Your task to perform on an android device: turn off notifications settings in the gmail app Image 0: 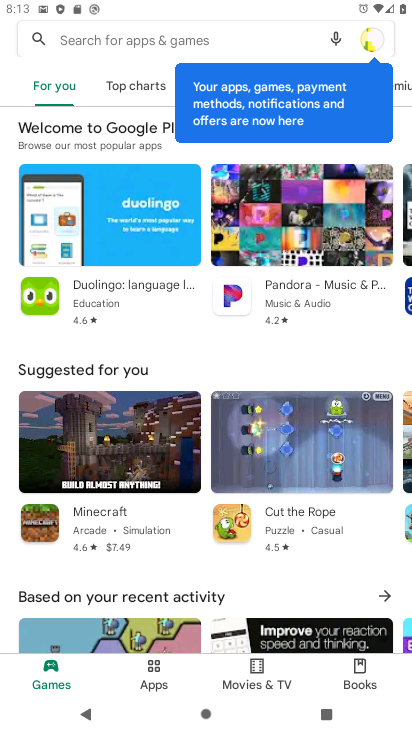
Step 0: press home button
Your task to perform on an android device: turn off notifications settings in the gmail app Image 1: 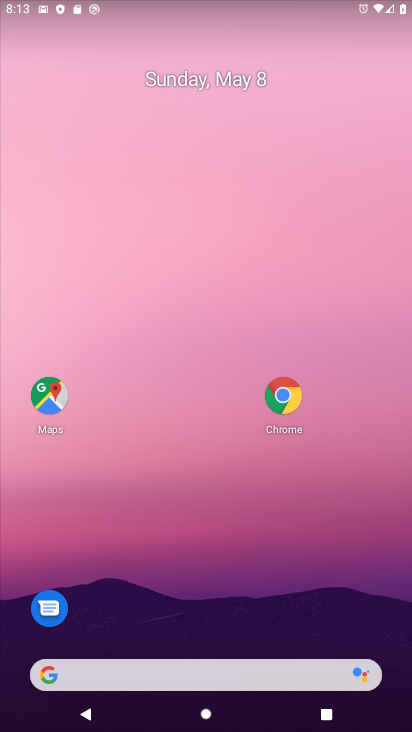
Step 1: drag from (154, 675) to (352, 101)
Your task to perform on an android device: turn off notifications settings in the gmail app Image 2: 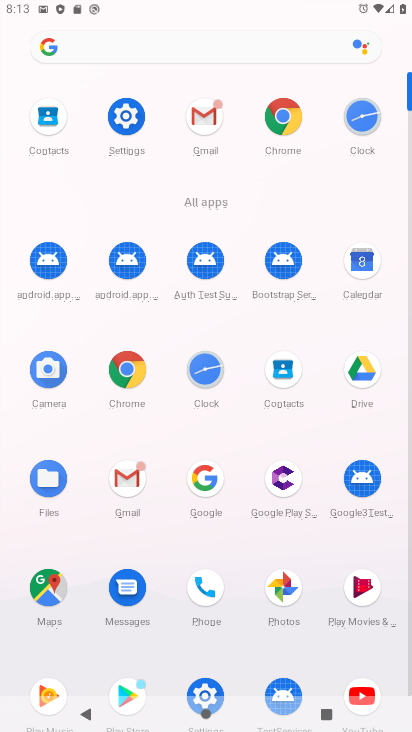
Step 2: click (200, 119)
Your task to perform on an android device: turn off notifications settings in the gmail app Image 3: 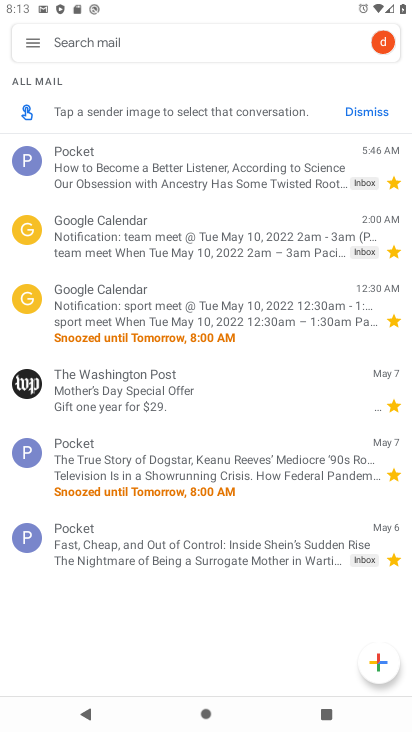
Step 3: click (35, 41)
Your task to perform on an android device: turn off notifications settings in the gmail app Image 4: 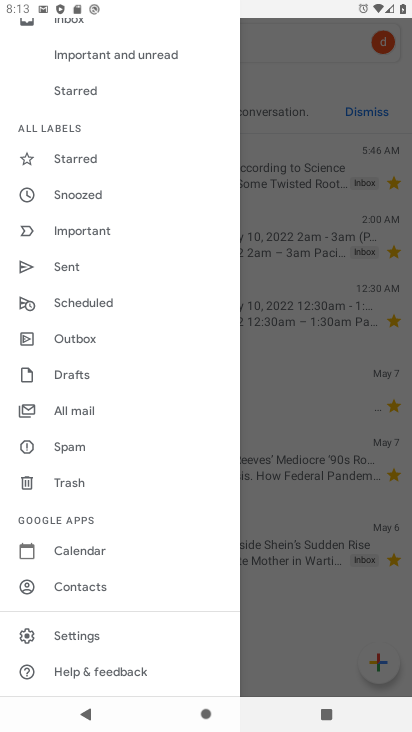
Step 4: click (61, 633)
Your task to perform on an android device: turn off notifications settings in the gmail app Image 5: 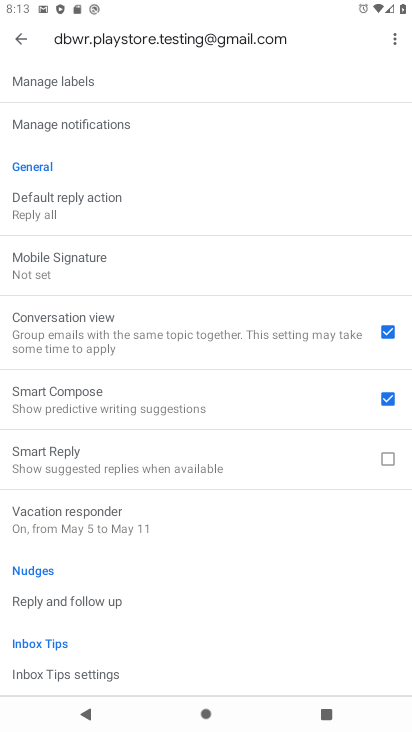
Step 5: drag from (205, 524) to (301, 233)
Your task to perform on an android device: turn off notifications settings in the gmail app Image 6: 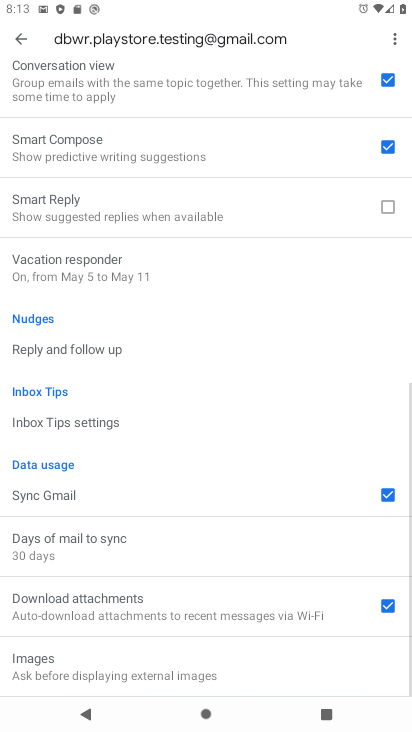
Step 6: drag from (300, 160) to (183, 589)
Your task to perform on an android device: turn off notifications settings in the gmail app Image 7: 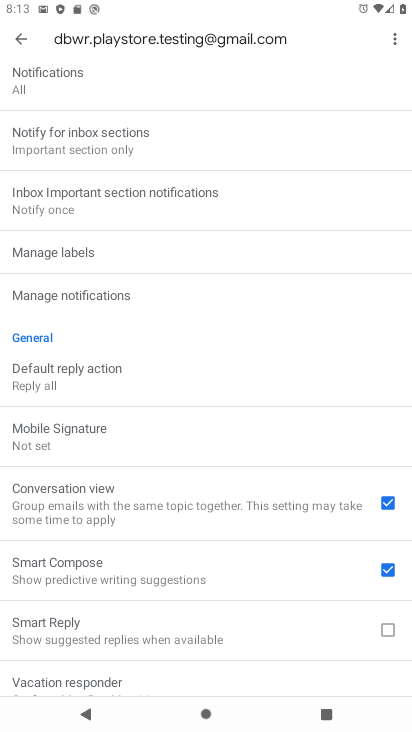
Step 7: drag from (270, 127) to (216, 385)
Your task to perform on an android device: turn off notifications settings in the gmail app Image 8: 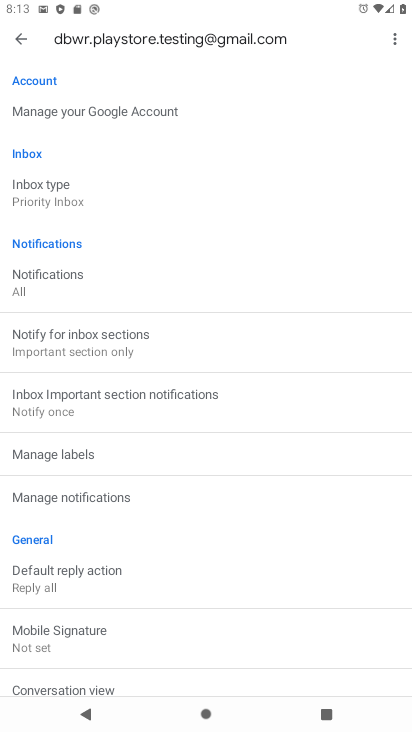
Step 8: click (71, 287)
Your task to perform on an android device: turn off notifications settings in the gmail app Image 9: 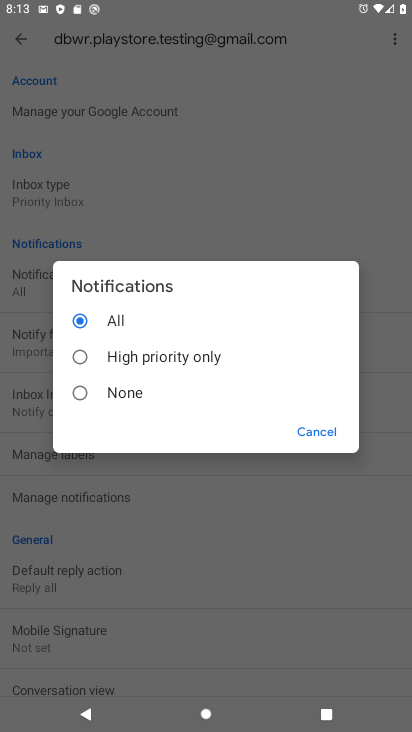
Step 9: click (76, 393)
Your task to perform on an android device: turn off notifications settings in the gmail app Image 10: 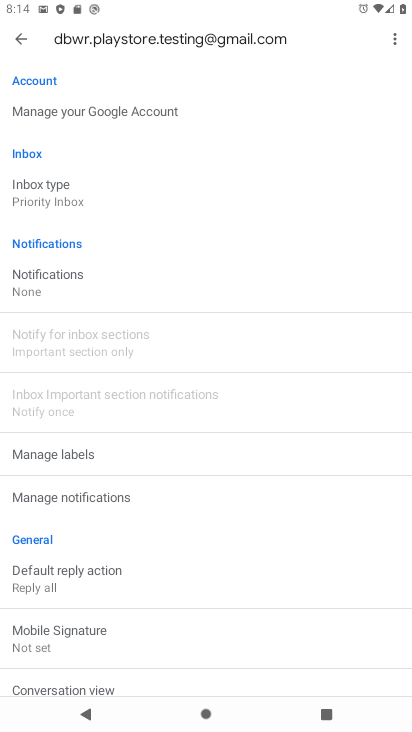
Step 10: task complete